Your task to perform on an android device: Go to calendar. Show me events next week Image 0: 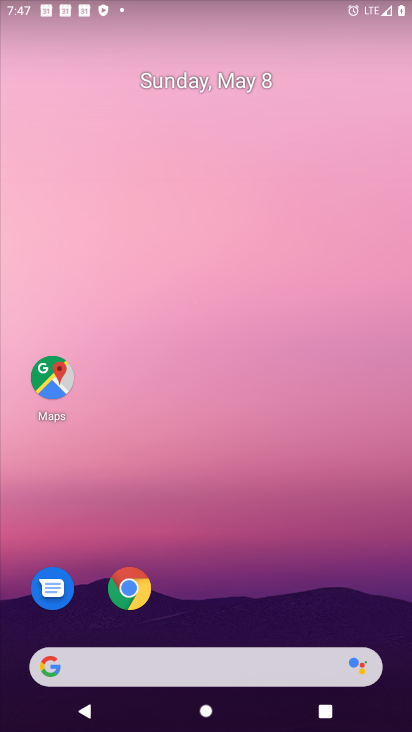
Step 0: drag from (122, 664) to (274, 58)
Your task to perform on an android device: Go to calendar. Show me events next week Image 1: 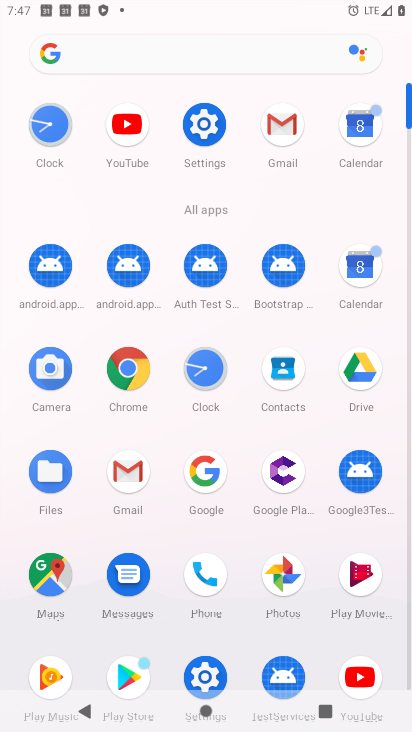
Step 1: click (360, 280)
Your task to perform on an android device: Go to calendar. Show me events next week Image 2: 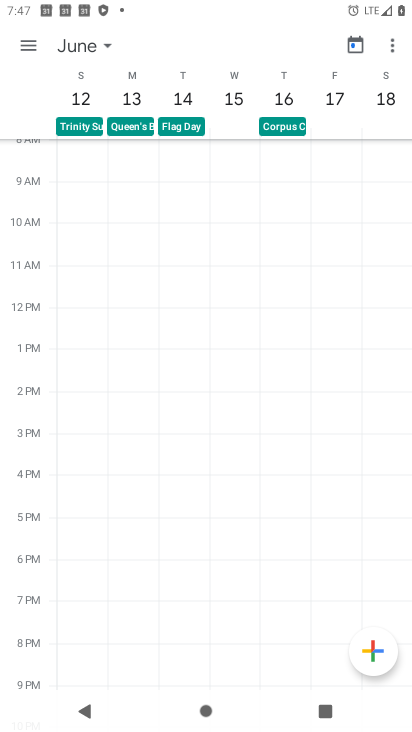
Step 2: click (91, 42)
Your task to perform on an android device: Go to calendar. Show me events next week Image 3: 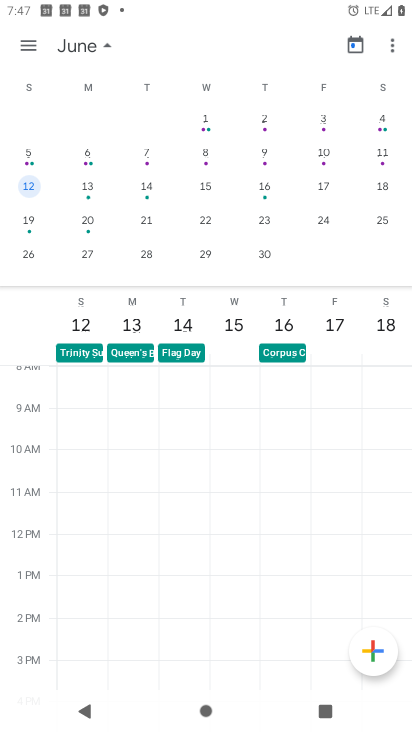
Step 3: drag from (112, 238) to (399, 213)
Your task to perform on an android device: Go to calendar. Show me events next week Image 4: 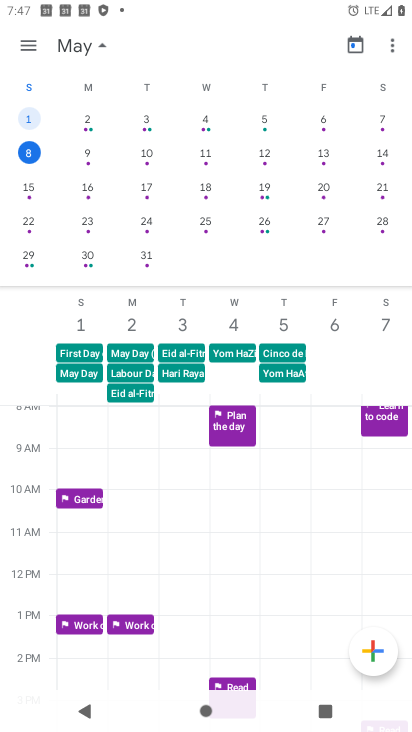
Step 4: click (31, 189)
Your task to perform on an android device: Go to calendar. Show me events next week Image 5: 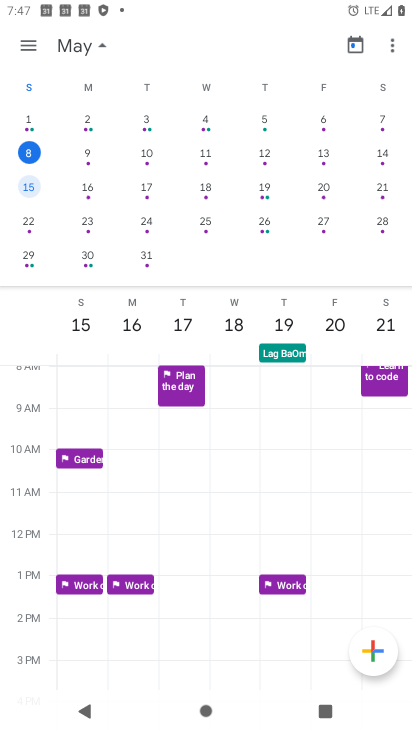
Step 5: click (32, 51)
Your task to perform on an android device: Go to calendar. Show me events next week Image 6: 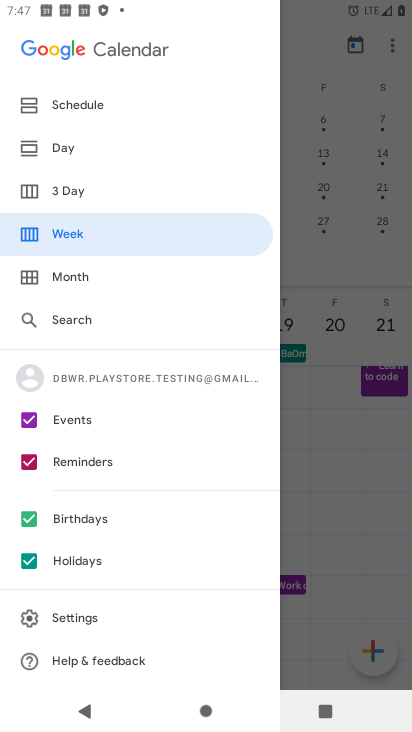
Step 6: click (101, 105)
Your task to perform on an android device: Go to calendar. Show me events next week Image 7: 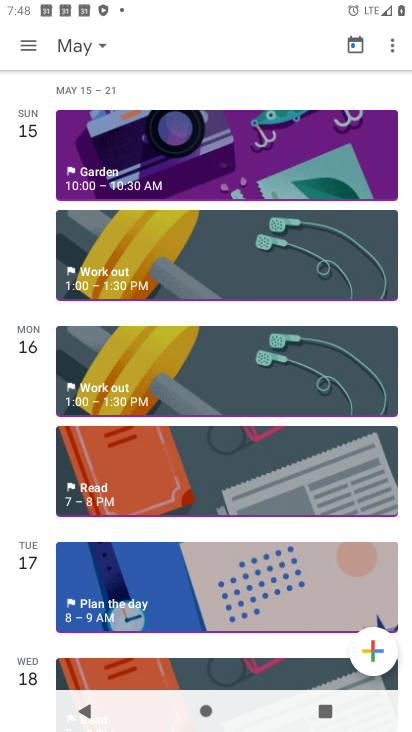
Step 7: click (165, 162)
Your task to perform on an android device: Go to calendar. Show me events next week Image 8: 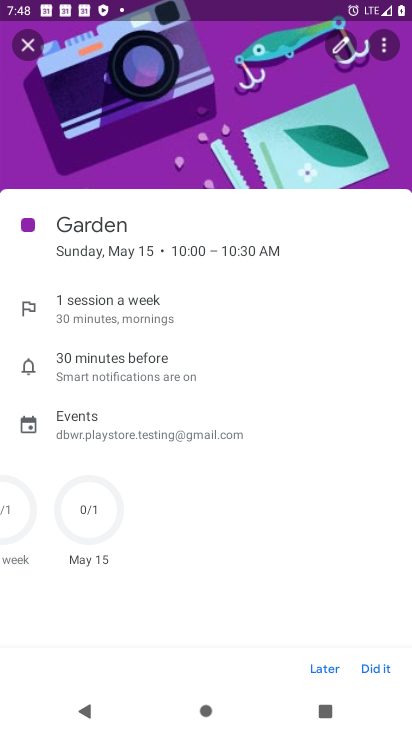
Step 8: task complete